Your task to perform on an android device: manage bookmarks in the chrome app Image 0: 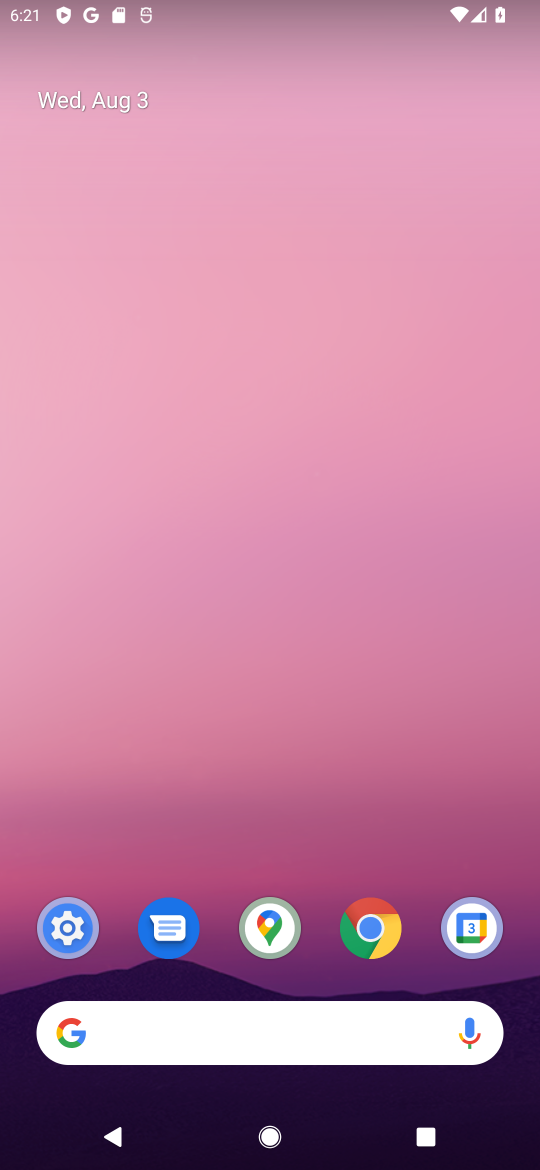
Step 0: press home button
Your task to perform on an android device: manage bookmarks in the chrome app Image 1: 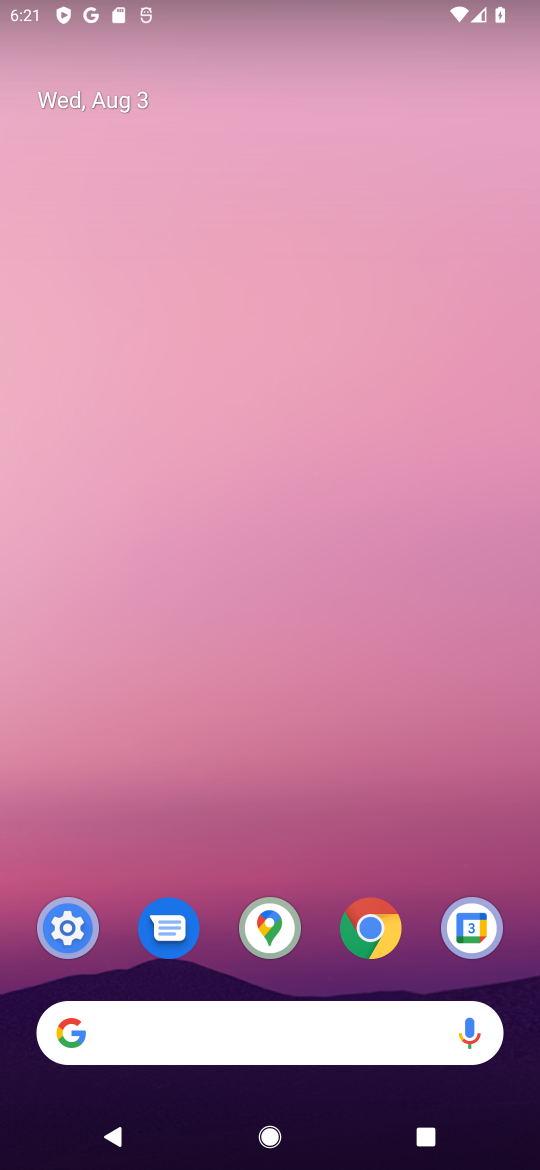
Step 1: drag from (316, 877) to (287, 127)
Your task to perform on an android device: manage bookmarks in the chrome app Image 2: 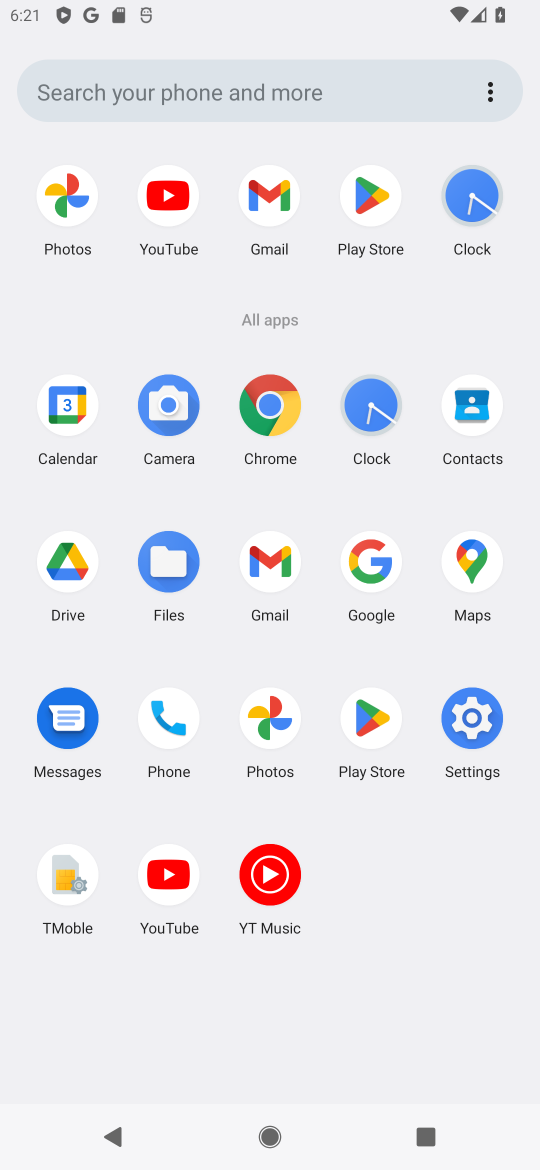
Step 2: click (269, 403)
Your task to perform on an android device: manage bookmarks in the chrome app Image 3: 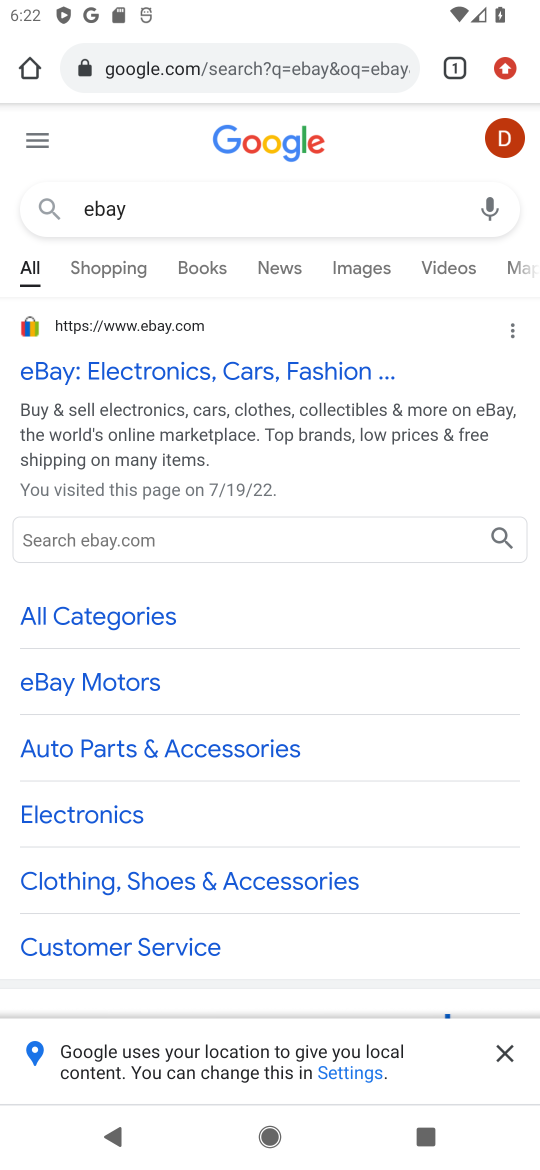
Step 3: click (501, 66)
Your task to perform on an android device: manage bookmarks in the chrome app Image 4: 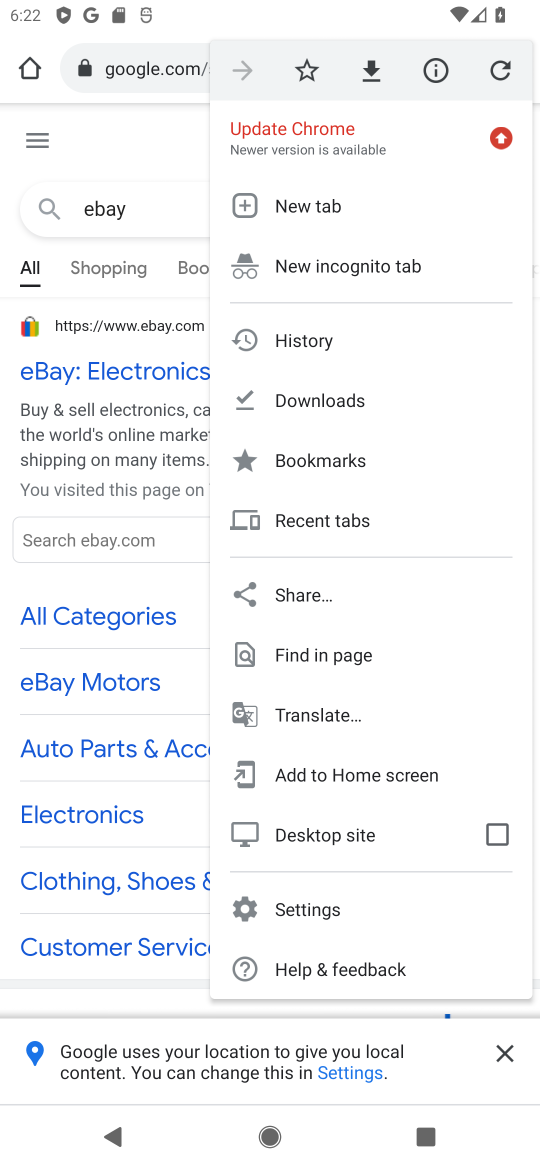
Step 4: click (353, 462)
Your task to perform on an android device: manage bookmarks in the chrome app Image 5: 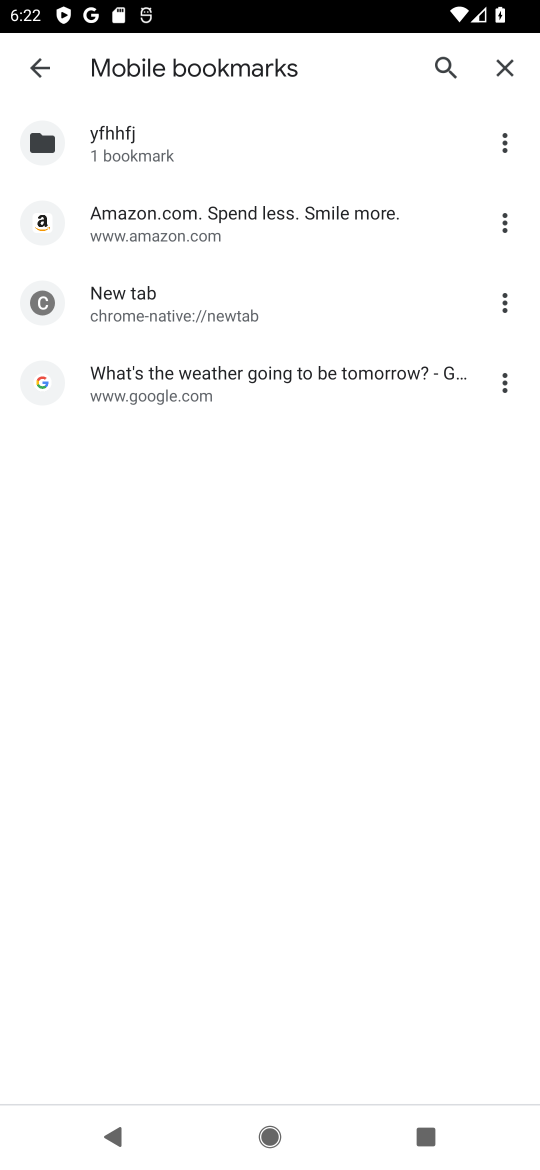
Step 5: click (499, 222)
Your task to perform on an android device: manage bookmarks in the chrome app Image 6: 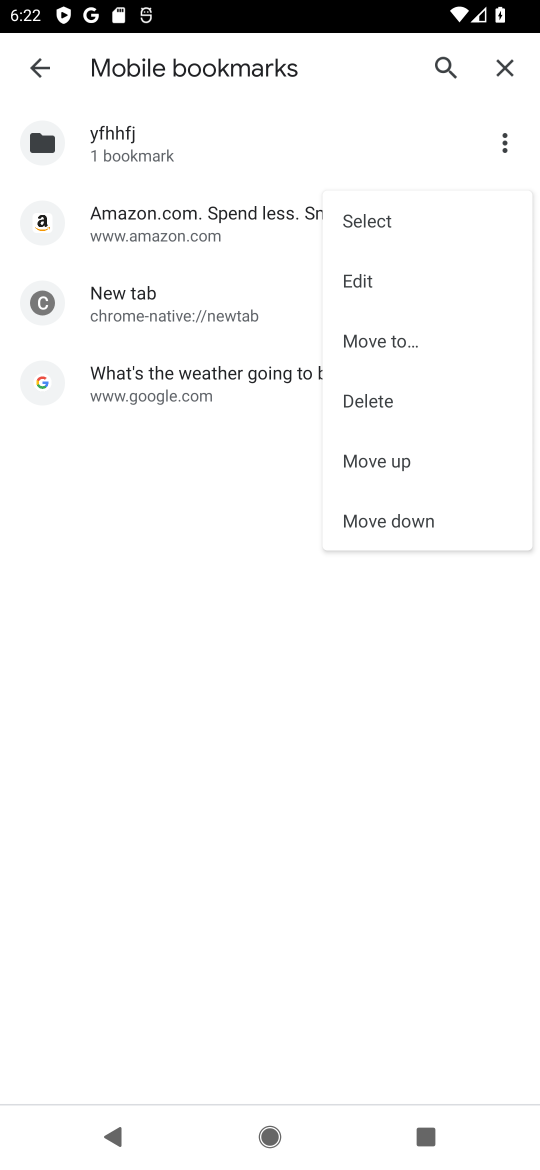
Step 6: click (395, 279)
Your task to perform on an android device: manage bookmarks in the chrome app Image 7: 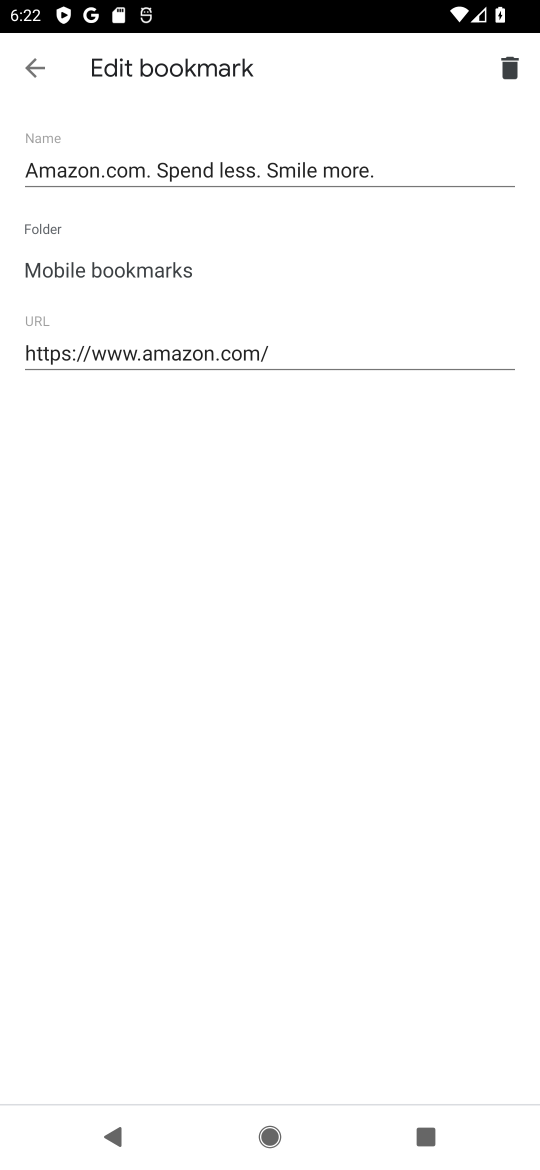
Step 7: click (402, 165)
Your task to perform on an android device: manage bookmarks in the chrome app Image 8: 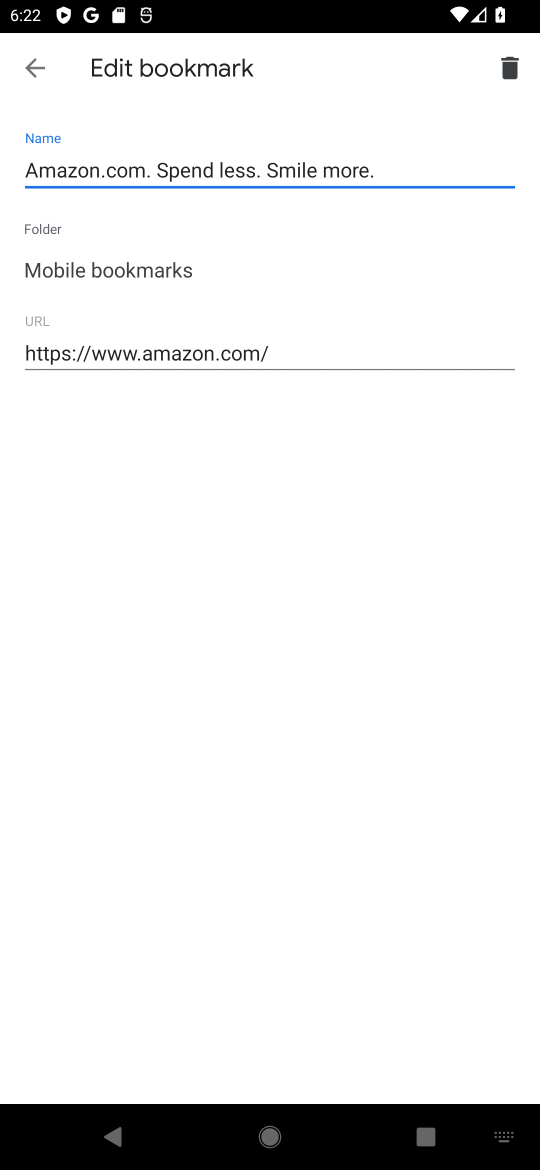
Step 8: type "."
Your task to perform on an android device: manage bookmarks in the chrome app Image 9: 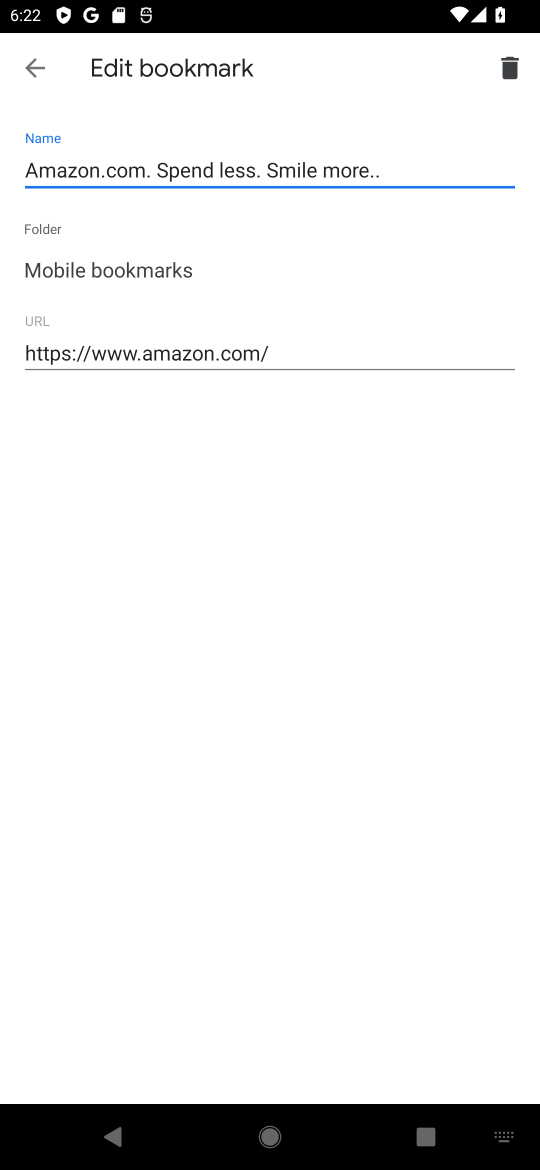
Step 9: click (27, 66)
Your task to perform on an android device: manage bookmarks in the chrome app Image 10: 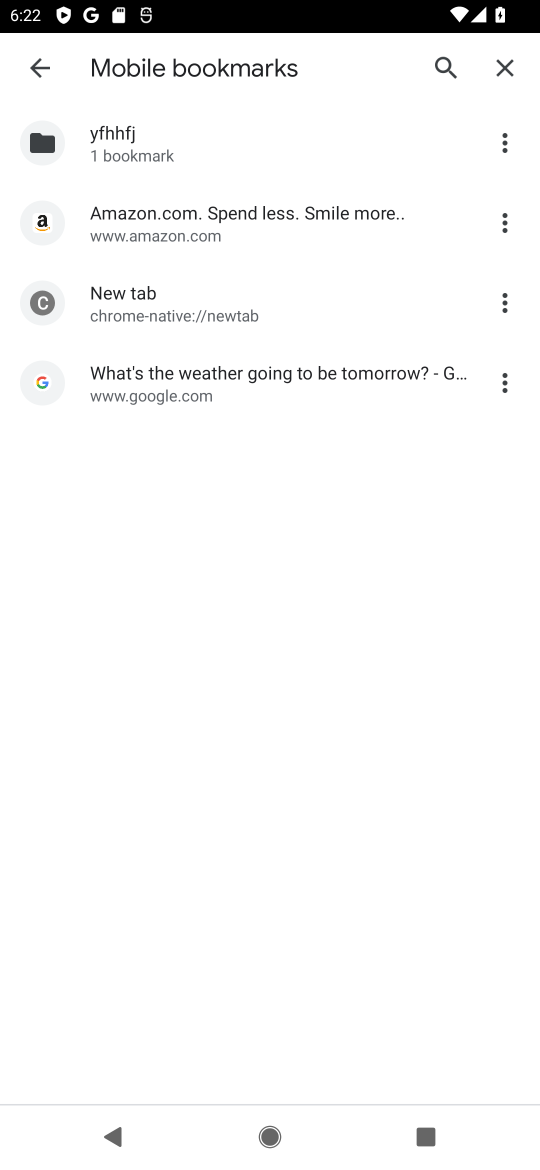
Step 10: task complete